Your task to perform on an android device: open chrome privacy settings Image 0: 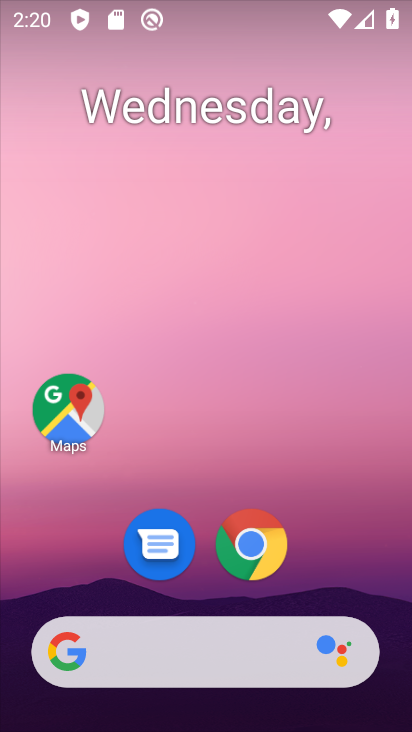
Step 0: click (256, 548)
Your task to perform on an android device: open chrome privacy settings Image 1: 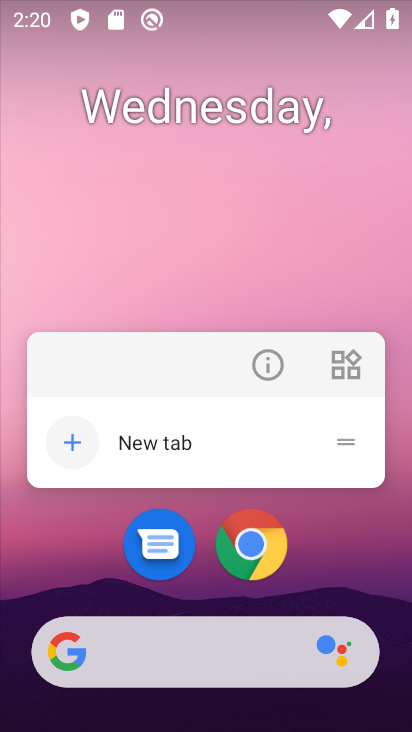
Step 1: click (215, 562)
Your task to perform on an android device: open chrome privacy settings Image 2: 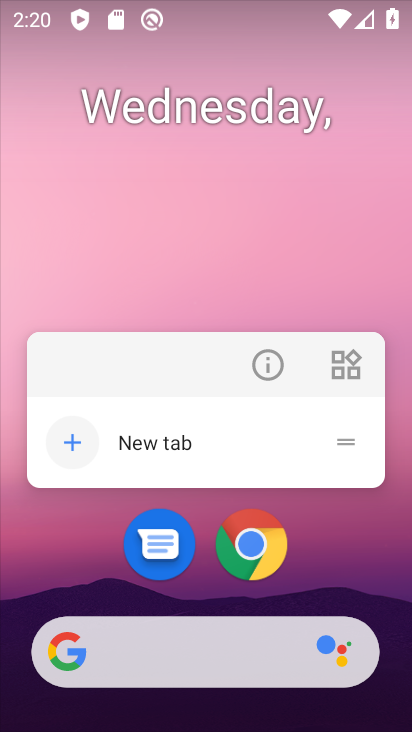
Step 2: click (260, 561)
Your task to perform on an android device: open chrome privacy settings Image 3: 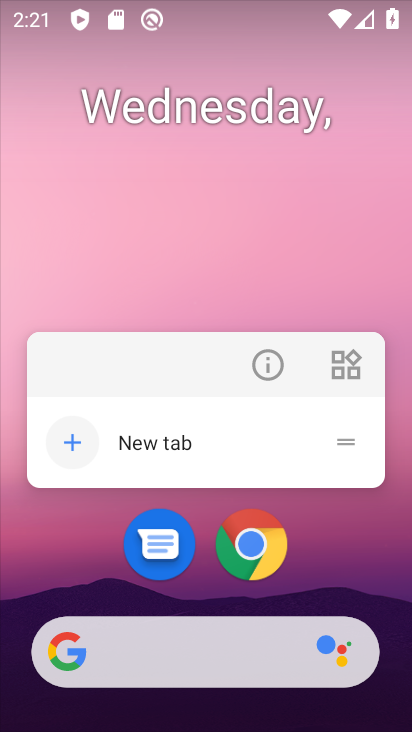
Step 3: click (250, 534)
Your task to perform on an android device: open chrome privacy settings Image 4: 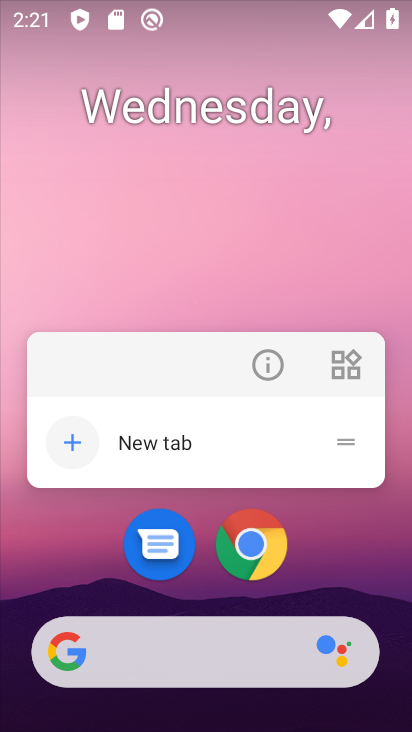
Step 4: click (254, 551)
Your task to perform on an android device: open chrome privacy settings Image 5: 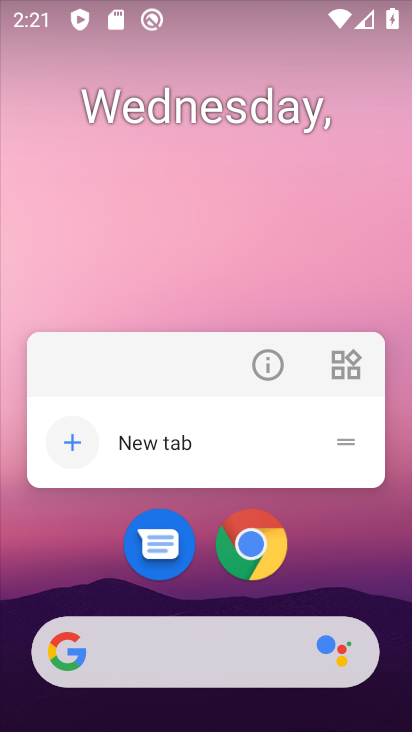
Step 5: click (262, 563)
Your task to perform on an android device: open chrome privacy settings Image 6: 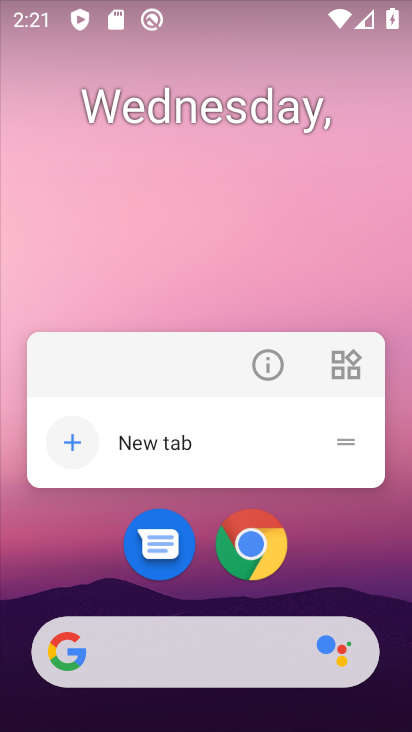
Step 6: click (260, 573)
Your task to perform on an android device: open chrome privacy settings Image 7: 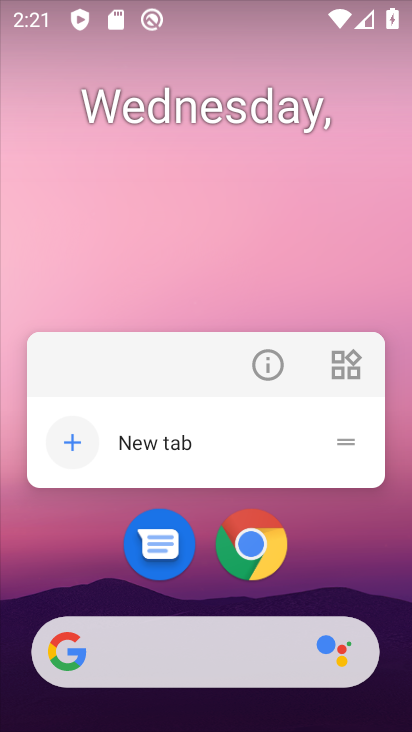
Step 7: click (252, 561)
Your task to perform on an android device: open chrome privacy settings Image 8: 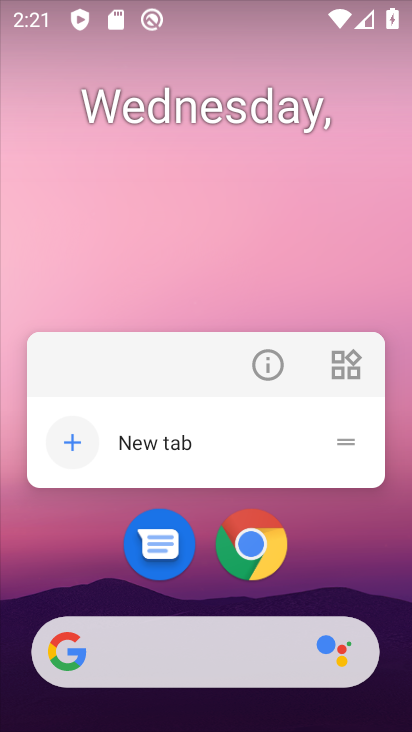
Step 8: click (258, 554)
Your task to perform on an android device: open chrome privacy settings Image 9: 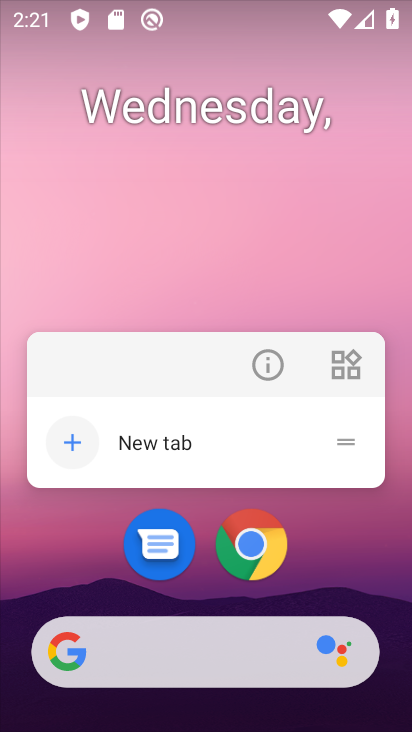
Step 9: click (258, 550)
Your task to perform on an android device: open chrome privacy settings Image 10: 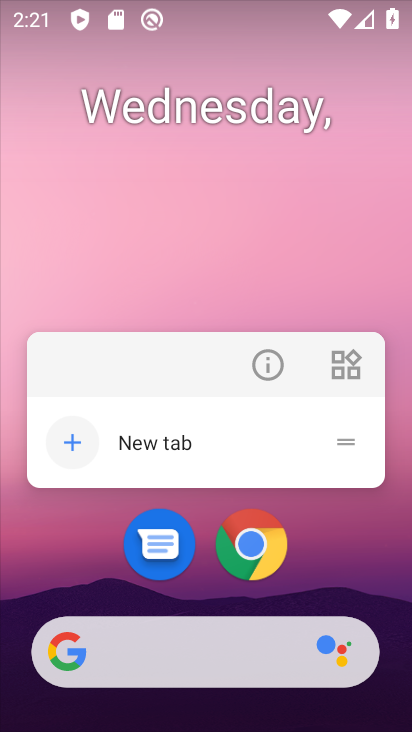
Step 10: click (257, 550)
Your task to perform on an android device: open chrome privacy settings Image 11: 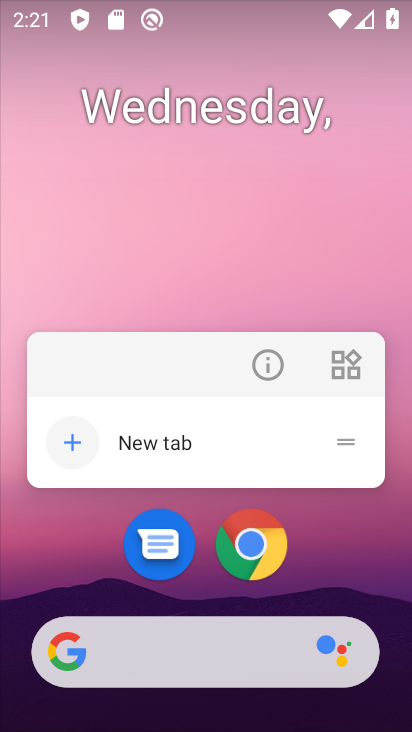
Step 11: click (257, 550)
Your task to perform on an android device: open chrome privacy settings Image 12: 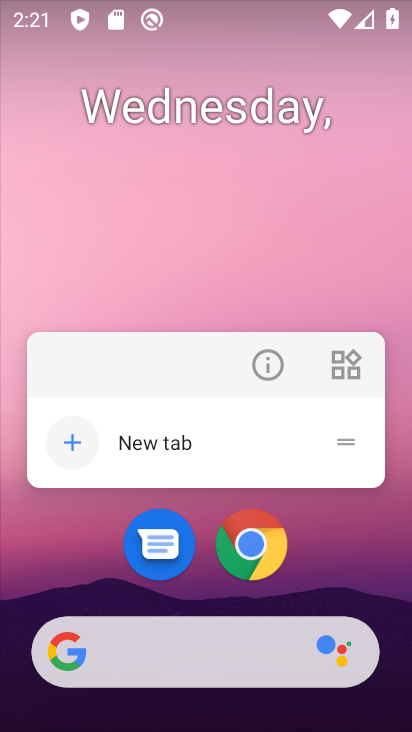
Step 12: click (257, 550)
Your task to perform on an android device: open chrome privacy settings Image 13: 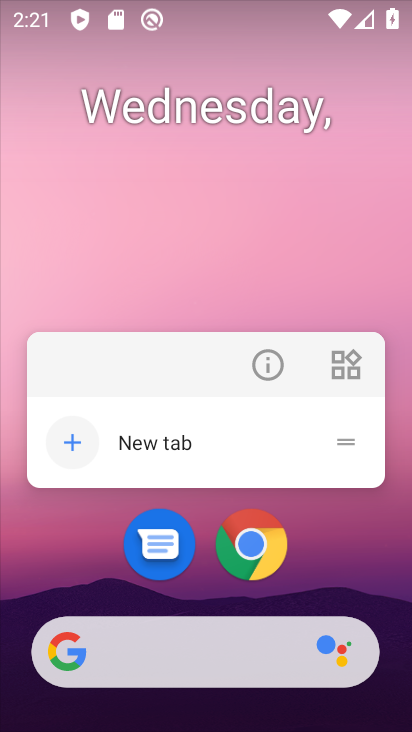
Step 13: click (257, 562)
Your task to perform on an android device: open chrome privacy settings Image 14: 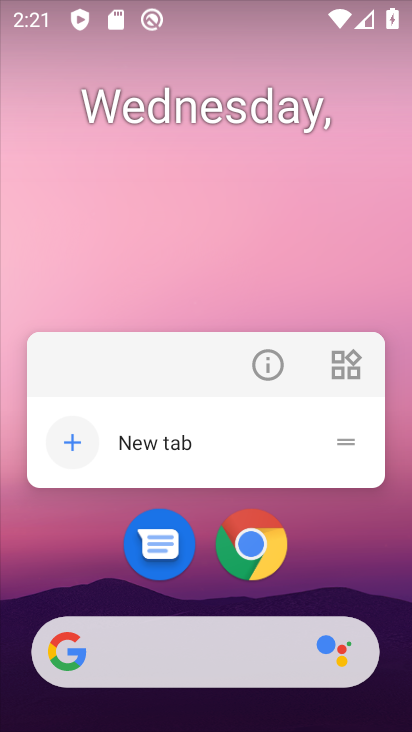
Step 14: click (248, 569)
Your task to perform on an android device: open chrome privacy settings Image 15: 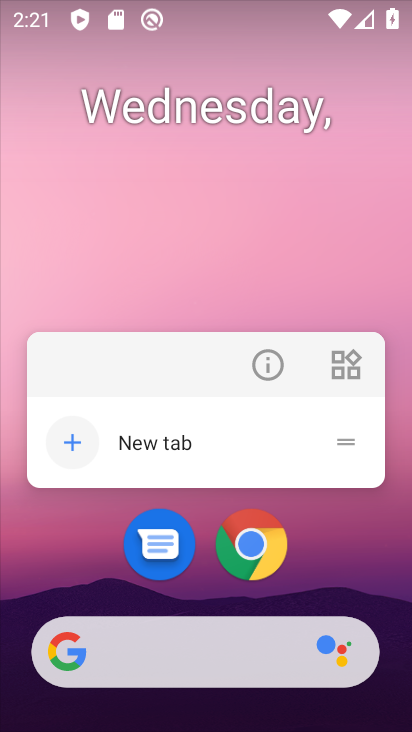
Step 15: click (250, 569)
Your task to perform on an android device: open chrome privacy settings Image 16: 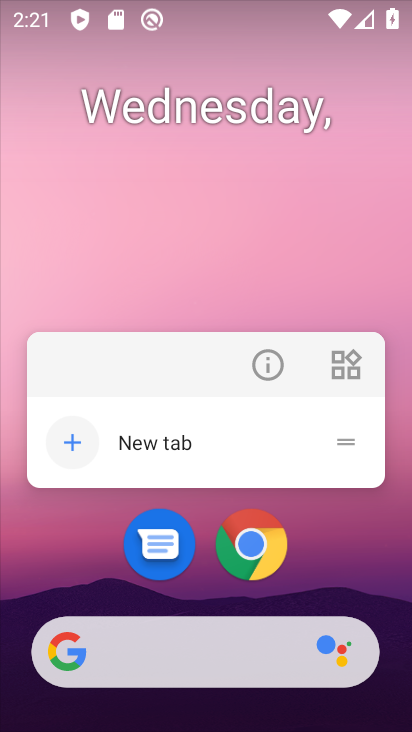
Step 16: click (285, 178)
Your task to perform on an android device: open chrome privacy settings Image 17: 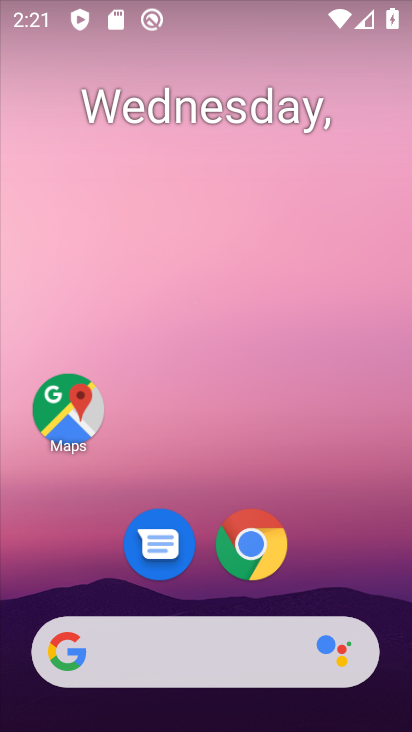
Step 17: click (248, 560)
Your task to perform on an android device: open chrome privacy settings Image 18: 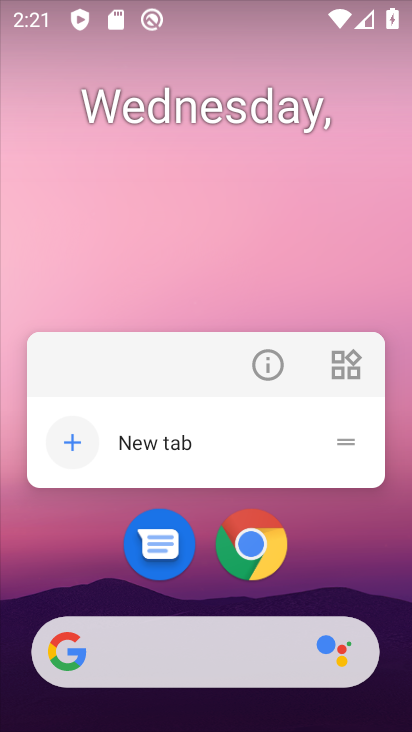
Step 18: click (262, 550)
Your task to perform on an android device: open chrome privacy settings Image 19: 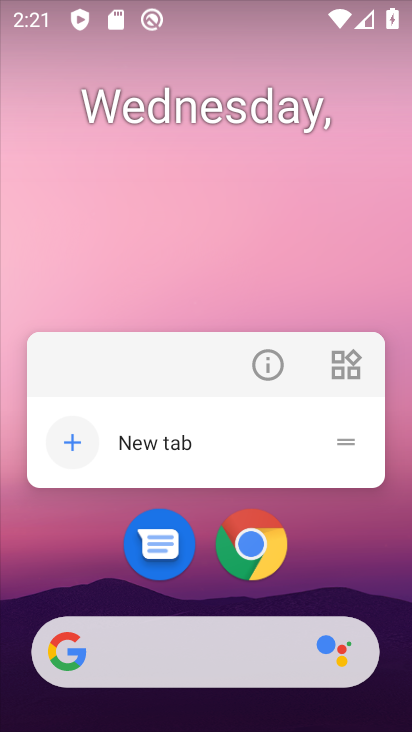
Step 19: drag from (371, 533) to (403, 319)
Your task to perform on an android device: open chrome privacy settings Image 20: 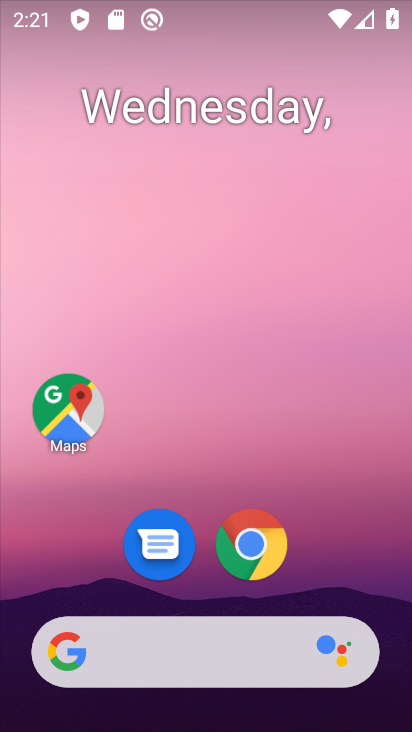
Step 20: drag from (170, 609) to (323, 26)
Your task to perform on an android device: open chrome privacy settings Image 21: 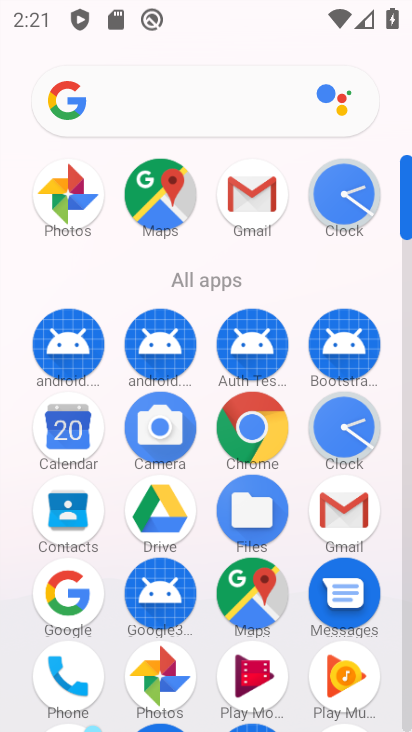
Step 21: click (245, 421)
Your task to perform on an android device: open chrome privacy settings Image 22: 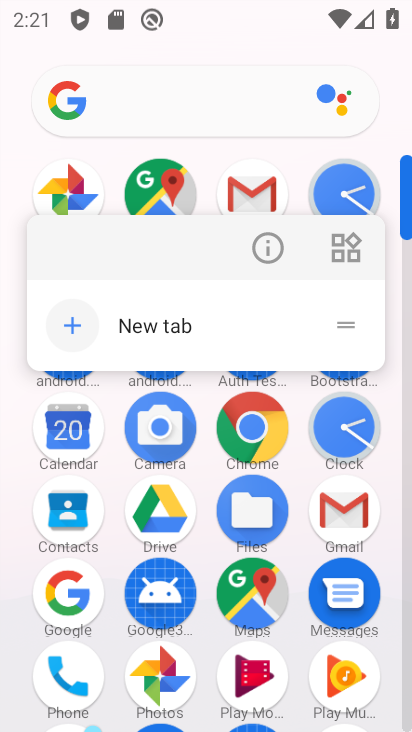
Step 22: click (250, 438)
Your task to perform on an android device: open chrome privacy settings Image 23: 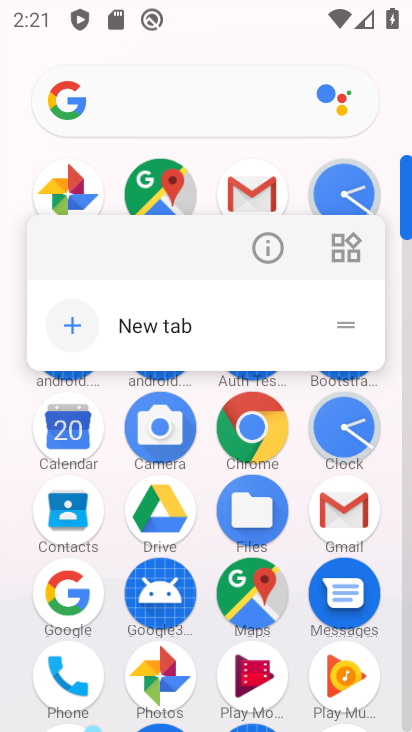
Step 23: click (265, 438)
Your task to perform on an android device: open chrome privacy settings Image 24: 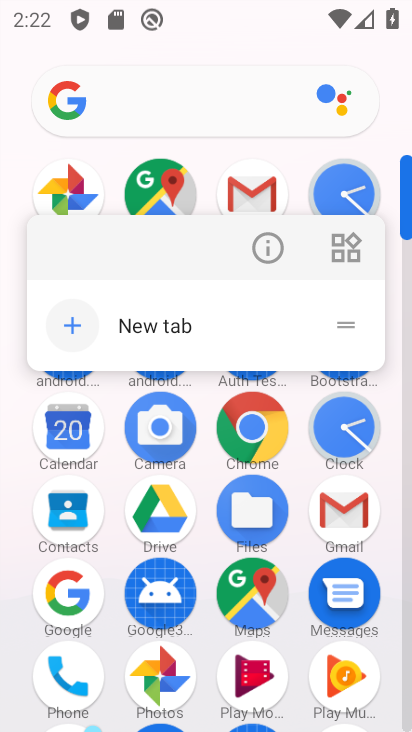
Step 24: click (238, 439)
Your task to perform on an android device: open chrome privacy settings Image 25: 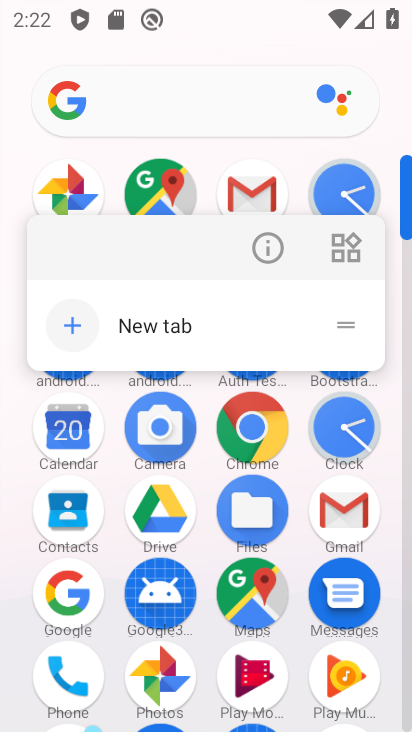
Step 25: click (263, 406)
Your task to perform on an android device: open chrome privacy settings Image 26: 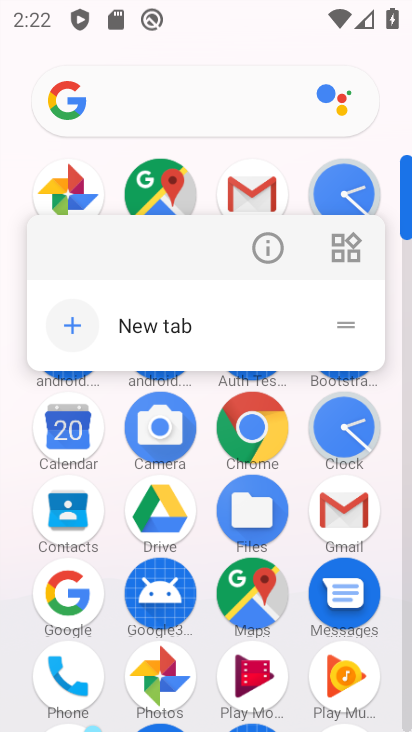
Step 26: click (259, 435)
Your task to perform on an android device: open chrome privacy settings Image 27: 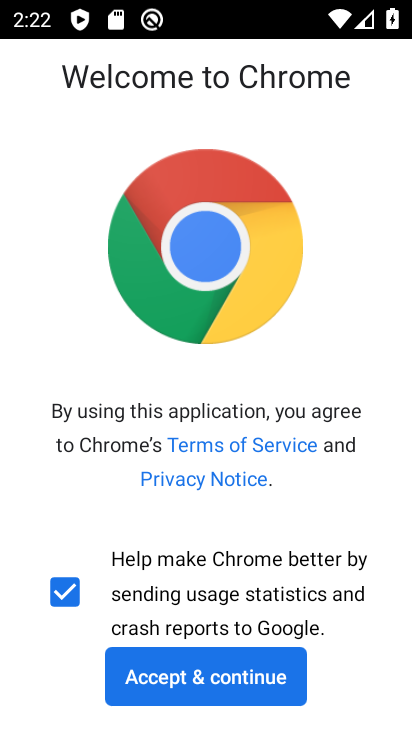
Step 27: click (238, 697)
Your task to perform on an android device: open chrome privacy settings Image 28: 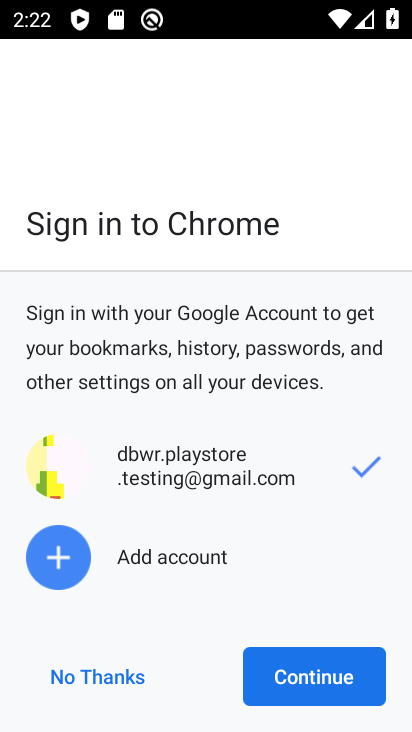
Step 28: click (298, 671)
Your task to perform on an android device: open chrome privacy settings Image 29: 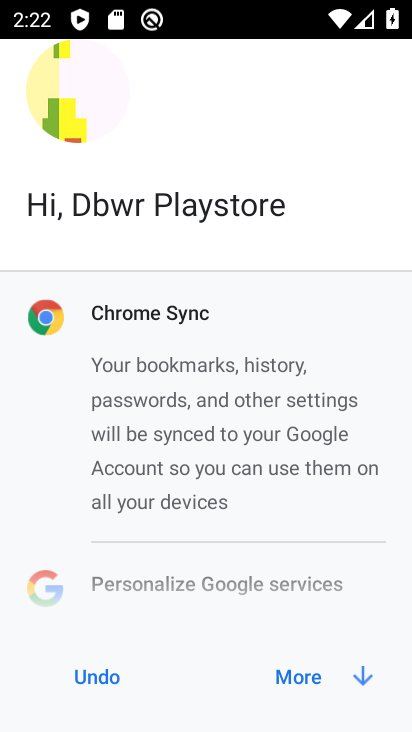
Step 29: click (323, 689)
Your task to perform on an android device: open chrome privacy settings Image 30: 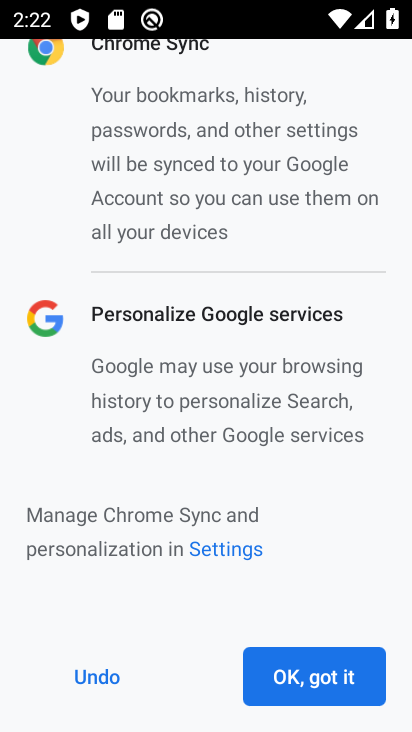
Step 30: click (362, 667)
Your task to perform on an android device: open chrome privacy settings Image 31: 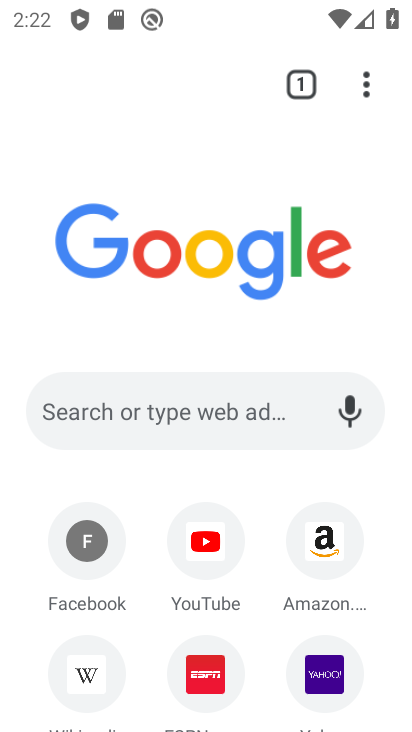
Step 31: drag from (374, 96) to (257, 584)
Your task to perform on an android device: open chrome privacy settings Image 32: 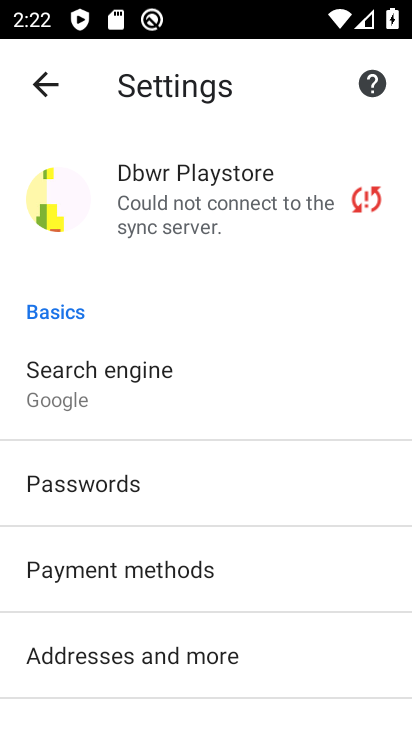
Step 32: drag from (210, 623) to (363, 272)
Your task to perform on an android device: open chrome privacy settings Image 33: 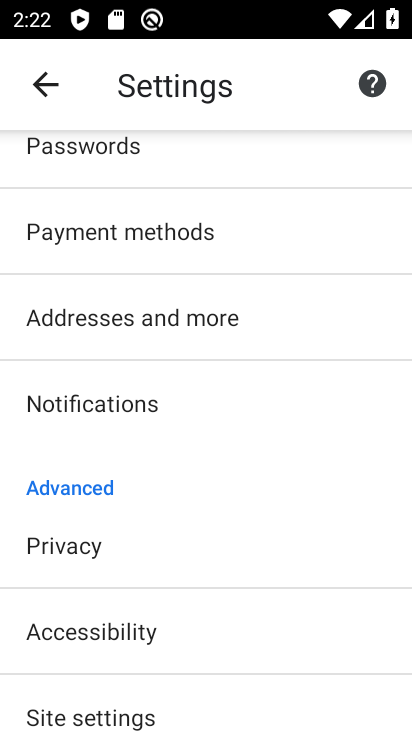
Step 33: click (155, 568)
Your task to perform on an android device: open chrome privacy settings Image 34: 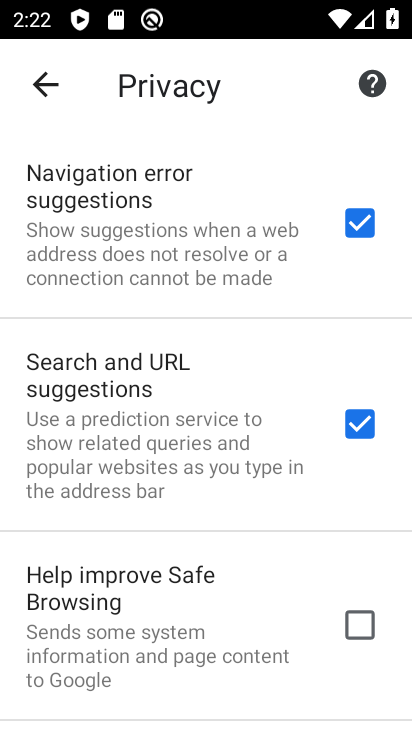
Step 34: task complete